Your task to perform on an android device: delete location history Image 0: 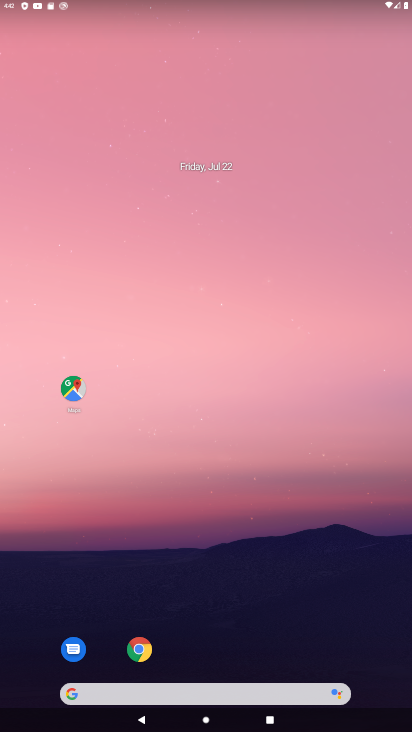
Step 0: drag from (259, 643) to (277, 0)
Your task to perform on an android device: delete location history Image 1: 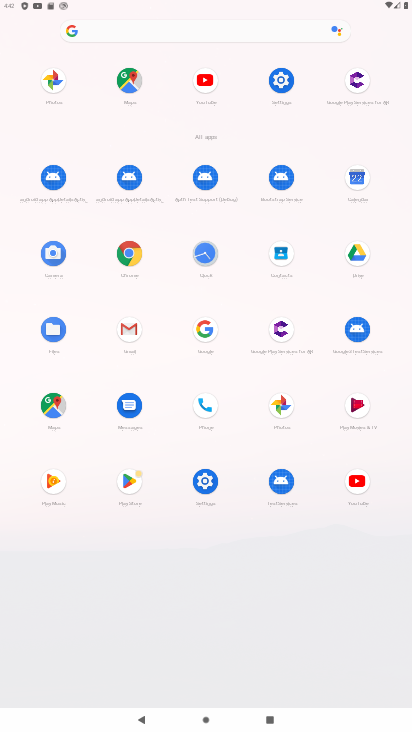
Step 1: click (128, 100)
Your task to perform on an android device: delete location history Image 2: 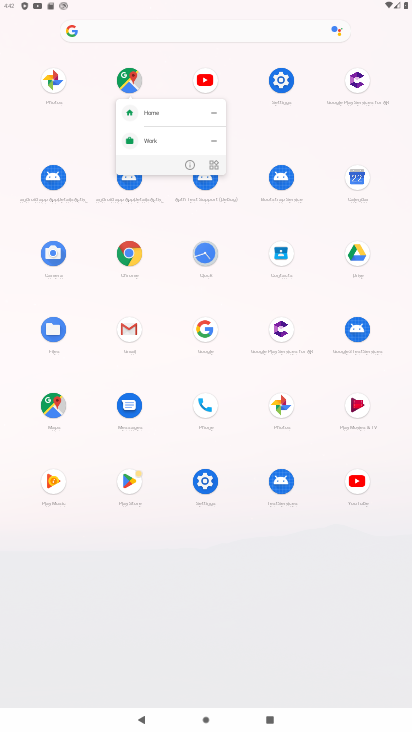
Step 2: click (131, 85)
Your task to perform on an android device: delete location history Image 3: 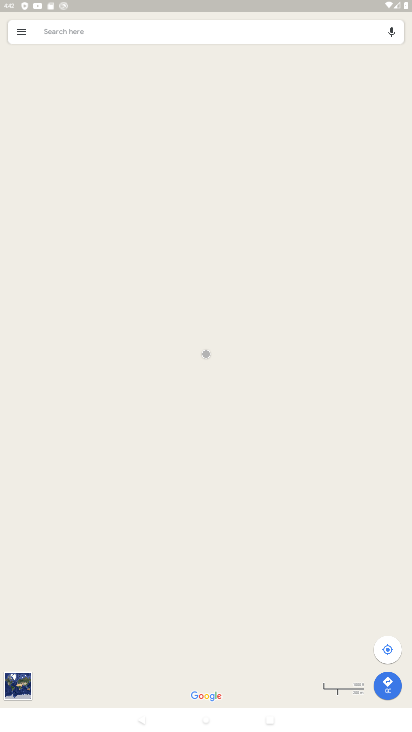
Step 3: click (29, 28)
Your task to perform on an android device: delete location history Image 4: 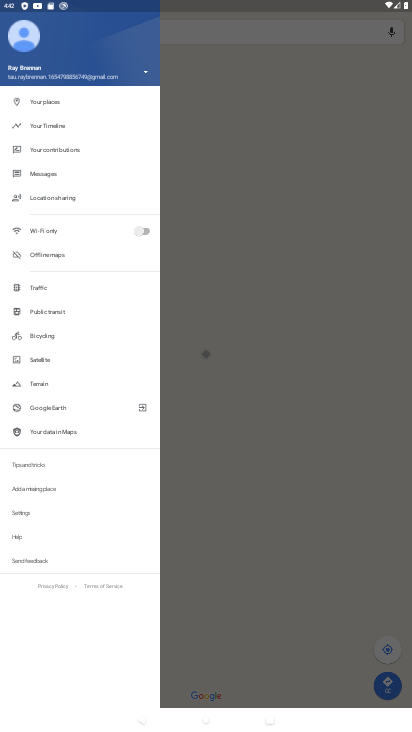
Step 4: click (61, 129)
Your task to perform on an android device: delete location history Image 5: 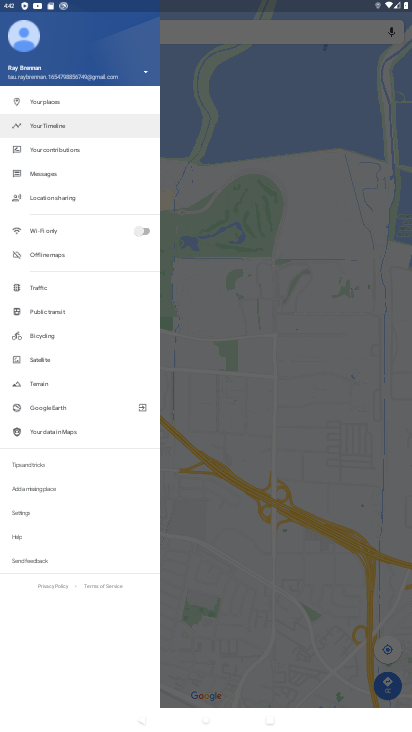
Step 5: click (55, 129)
Your task to perform on an android device: delete location history Image 6: 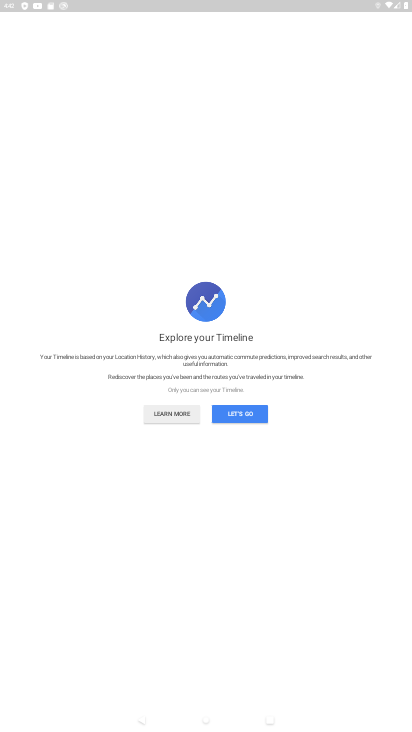
Step 6: click (235, 414)
Your task to perform on an android device: delete location history Image 7: 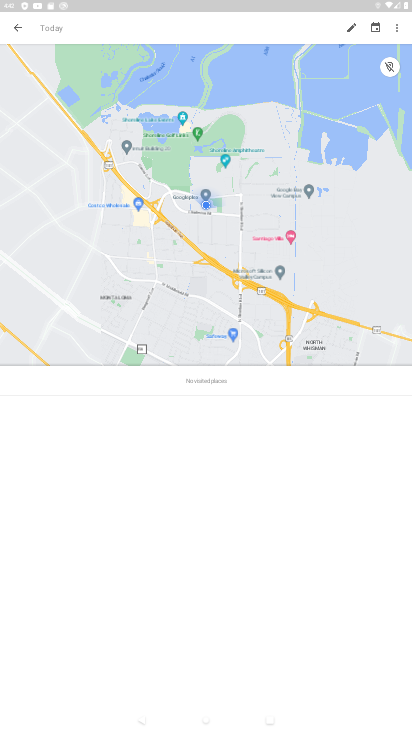
Step 7: click (401, 22)
Your task to perform on an android device: delete location history Image 8: 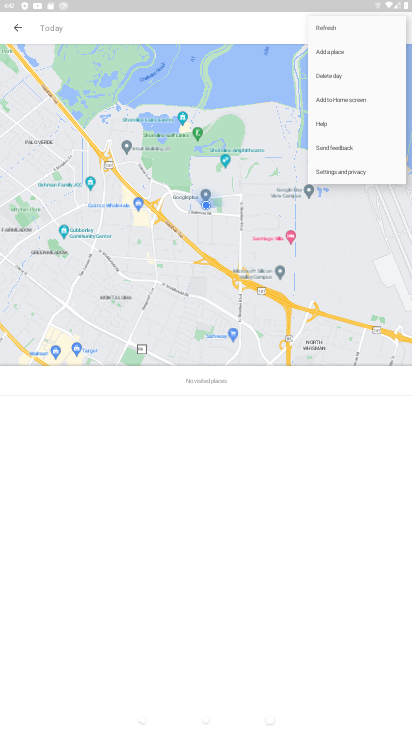
Step 8: click (345, 165)
Your task to perform on an android device: delete location history Image 9: 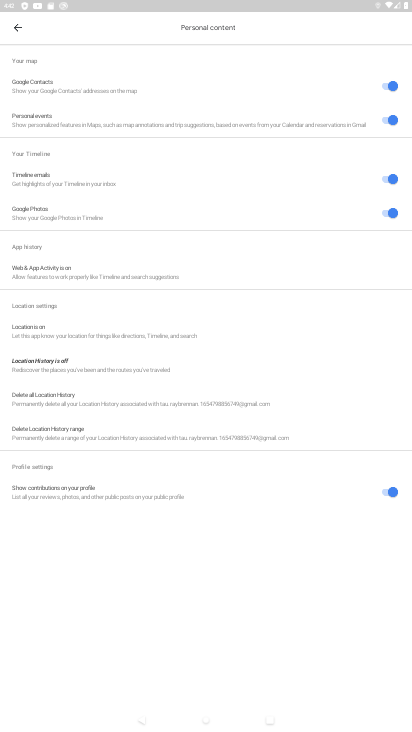
Step 9: click (106, 399)
Your task to perform on an android device: delete location history Image 10: 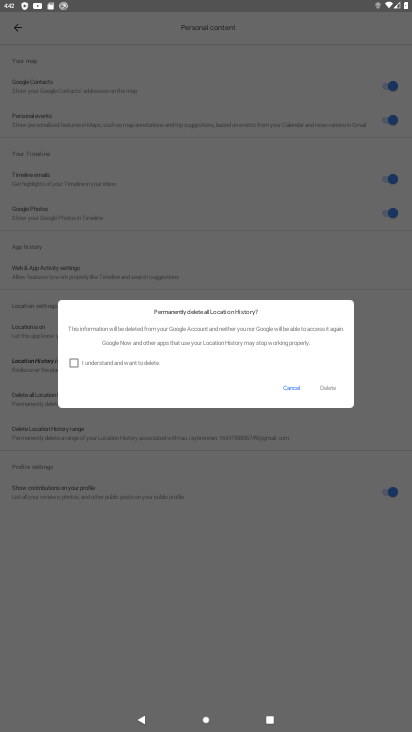
Step 10: click (159, 364)
Your task to perform on an android device: delete location history Image 11: 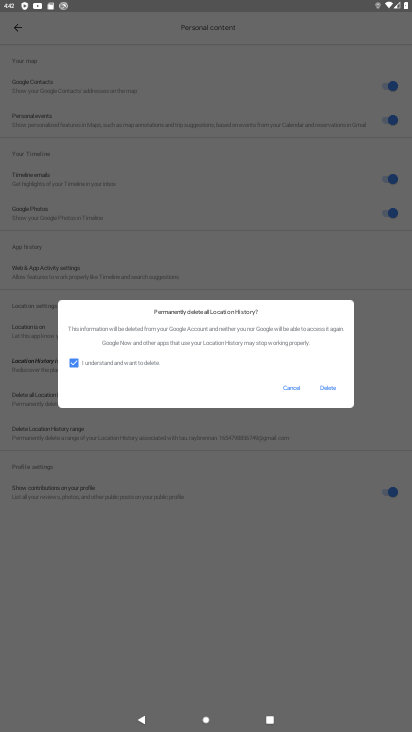
Step 11: click (330, 395)
Your task to perform on an android device: delete location history Image 12: 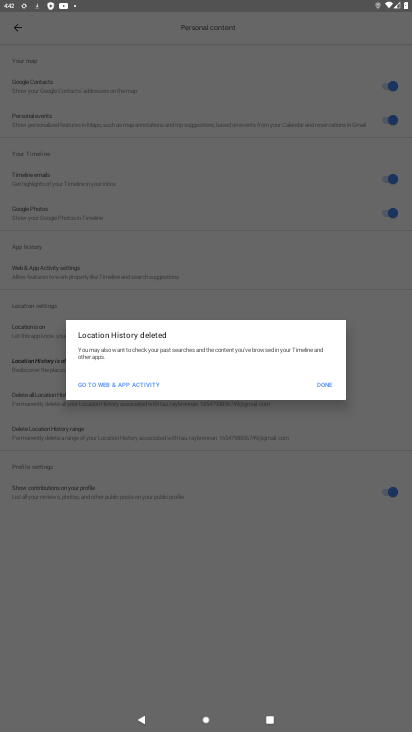
Step 12: click (329, 382)
Your task to perform on an android device: delete location history Image 13: 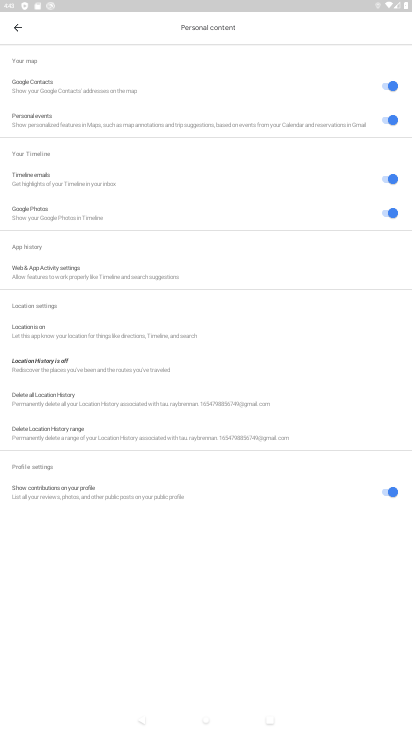
Step 13: task complete